Your task to perform on an android device: Open calendar and show me the third week of next month Image 0: 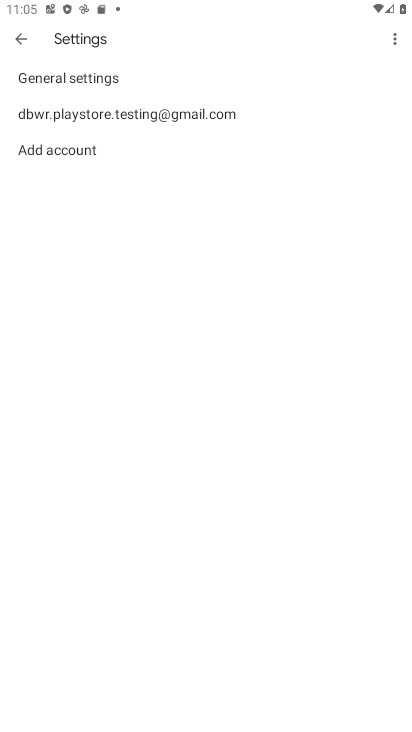
Step 0: press home button
Your task to perform on an android device: Open calendar and show me the third week of next month Image 1: 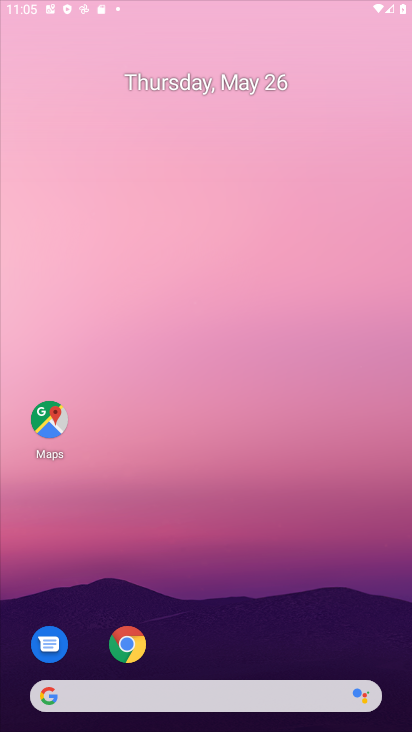
Step 1: drag from (329, 652) to (237, 46)
Your task to perform on an android device: Open calendar and show me the third week of next month Image 2: 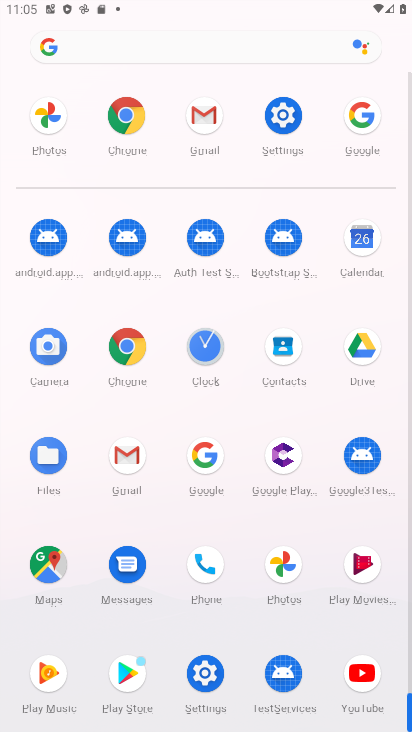
Step 2: click (375, 245)
Your task to perform on an android device: Open calendar and show me the third week of next month Image 3: 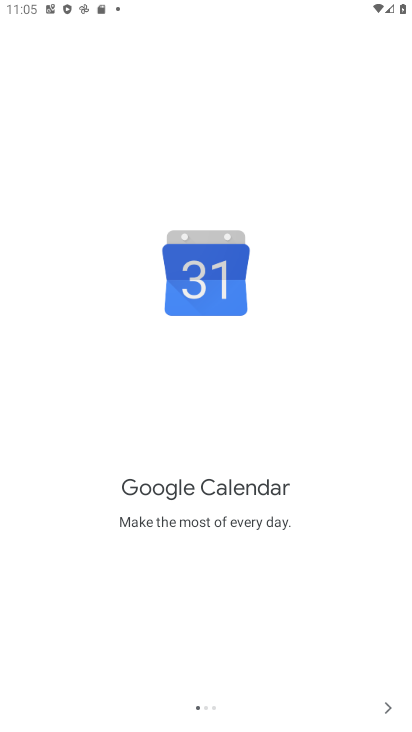
Step 3: click (395, 700)
Your task to perform on an android device: Open calendar and show me the third week of next month Image 4: 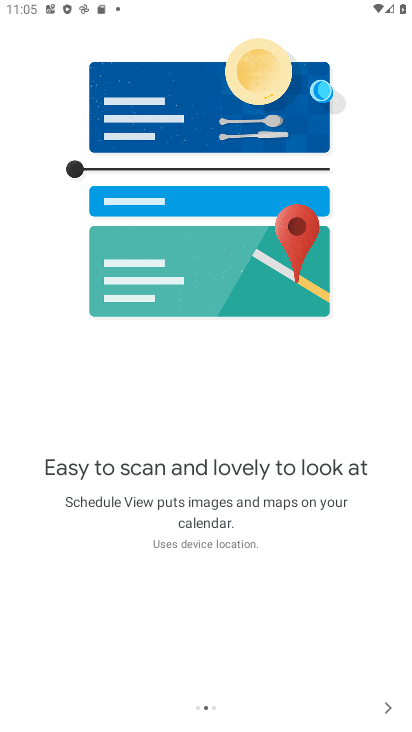
Step 4: click (395, 700)
Your task to perform on an android device: Open calendar and show me the third week of next month Image 5: 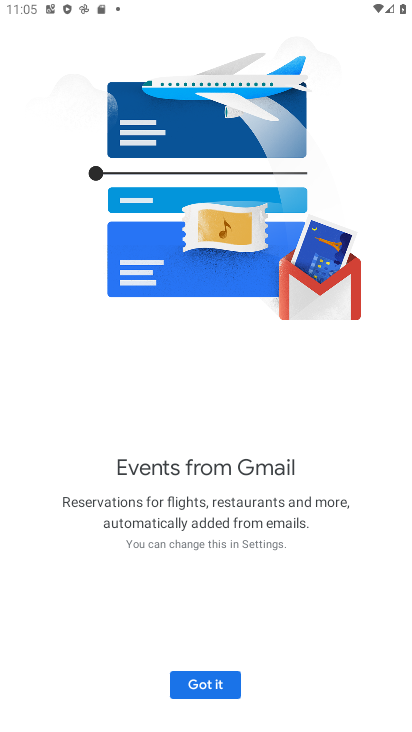
Step 5: click (186, 694)
Your task to perform on an android device: Open calendar and show me the third week of next month Image 6: 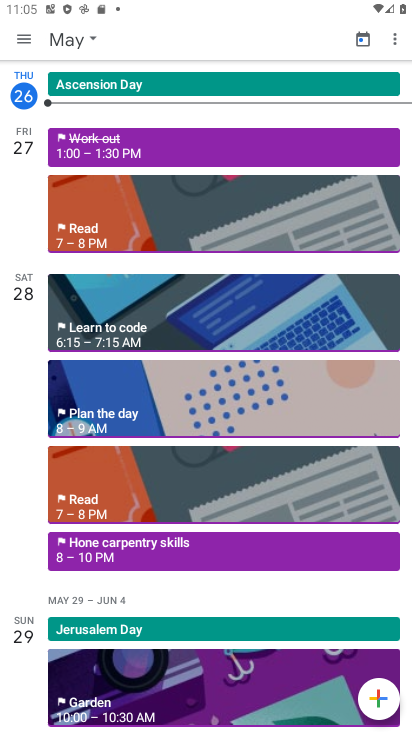
Step 6: click (56, 43)
Your task to perform on an android device: Open calendar and show me the third week of next month Image 7: 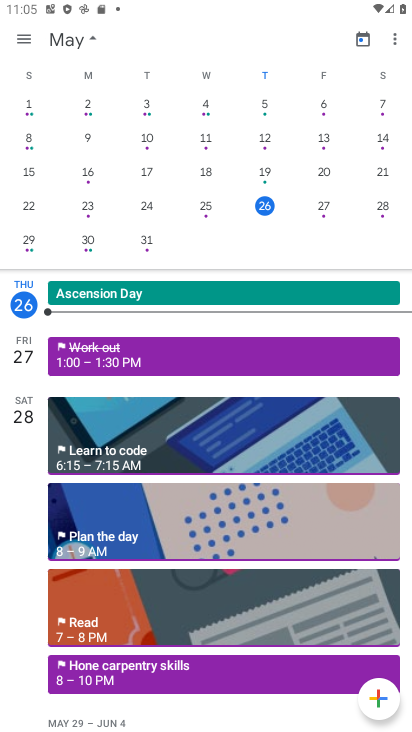
Step 7: drag from (328, 180) to (0, 182)
Your task to perform on an android device: Open calendar and show me the third week of next month Image 8: 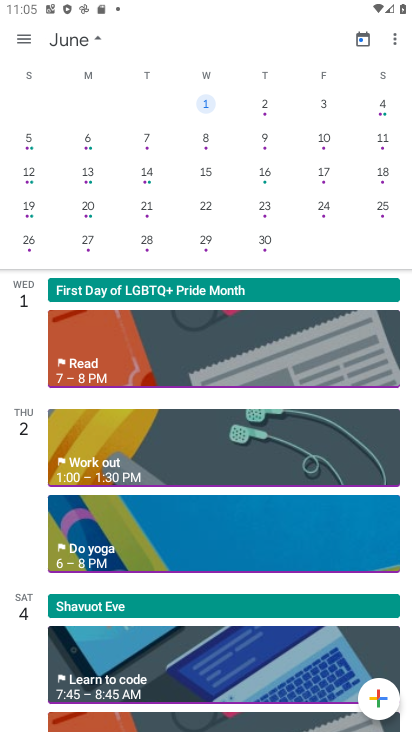
Step 8: click (25, 208)
Your task to perform on an android device: Open calendar and show me the third week of next month Image 9: 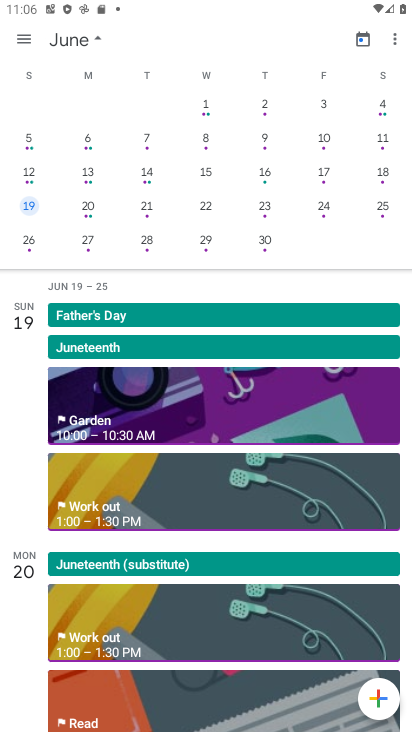
Step 9: task complete